Your task to perform on an android device: add a contact Image 0: 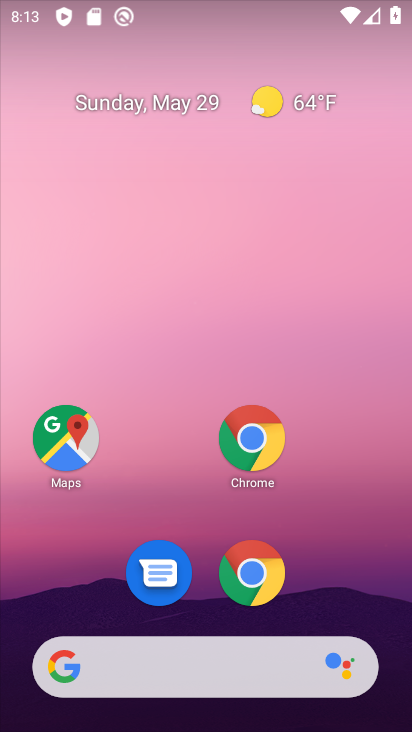
Step 0: drag from (269, 226) to (186, 121)
Your task to perform on an android device: add a contact Image 1: 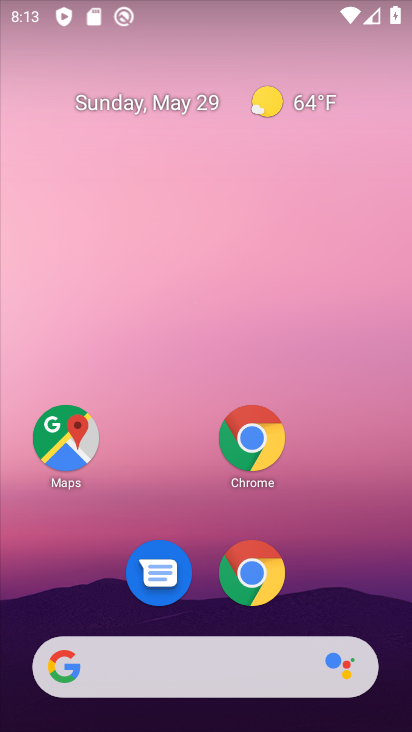
Step 1: drag from (203, 492) to (167, 46)
Your task to perform on an android device: add a contact Image 2: 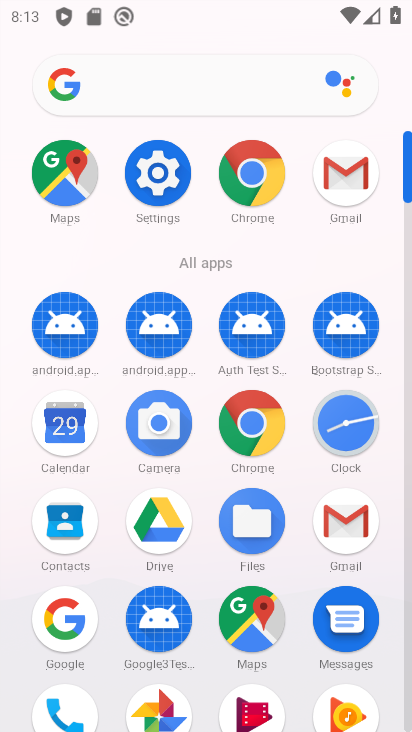
Step 2: drag from (249, 537) to (197, 0)
Your task to perform on an android device: add a contact Image 3: 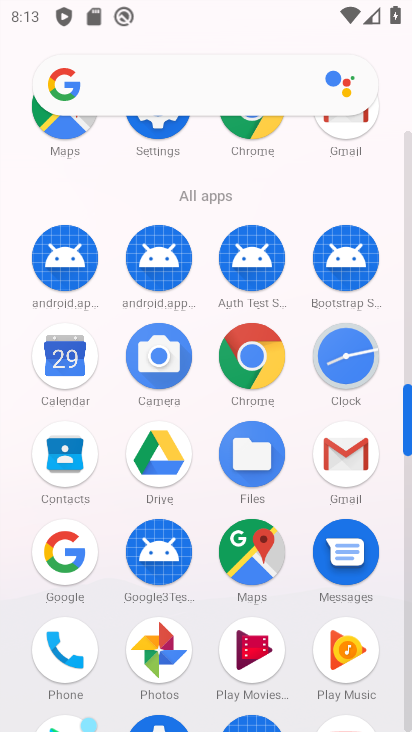
Step 3: click (57, 661)
Your task to perform on an android device: add a contact Image 4: 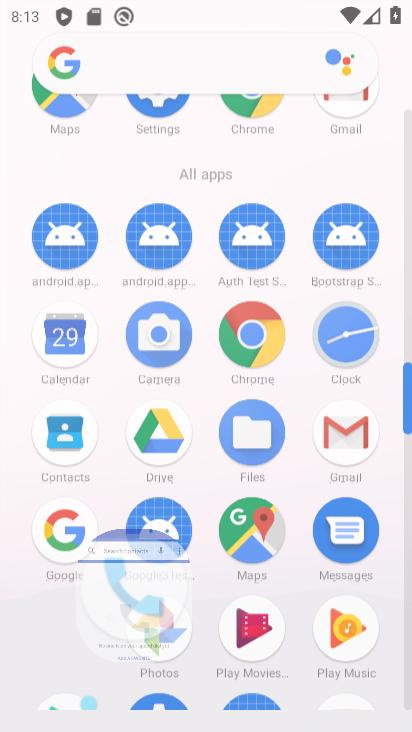
Step 4: click (58, 653)
Your task to perform on an android device: add a contact Image 5: 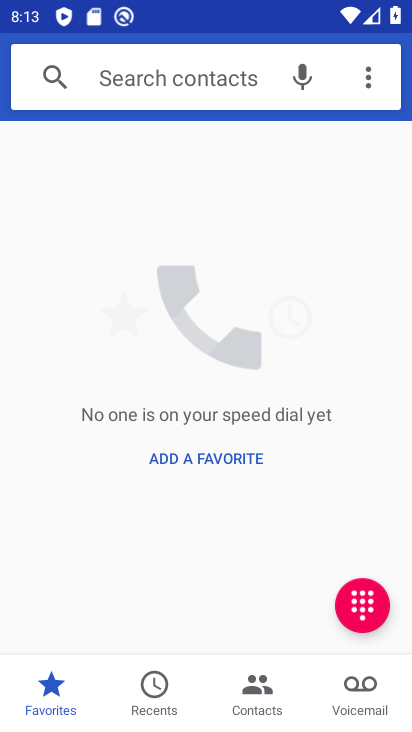
Step 5: click (58, 653)
Your task to perform on an android device: add a contact Image 6: 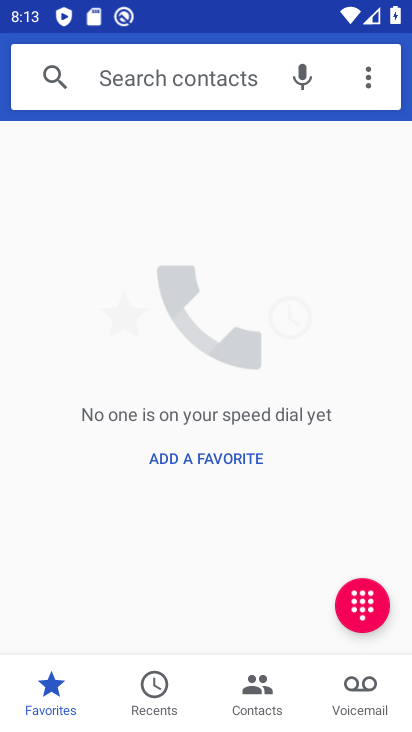
Step 6: click (219, 456)
Your task to perform on an android device: add a contact Image 7: 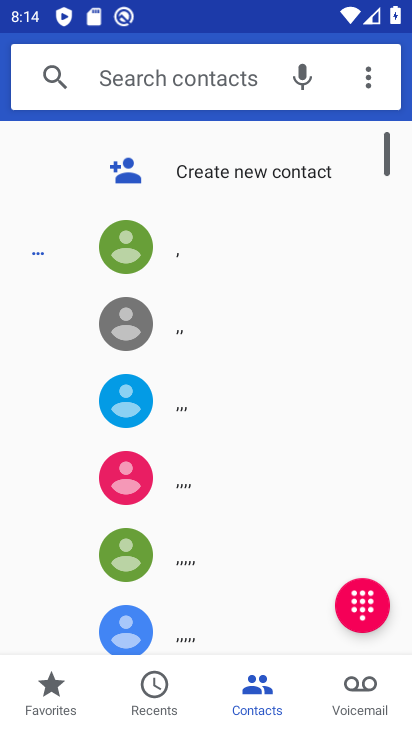
Step 7: click (207, 168)
Your task to perform on an android device: add a contact Image 8: 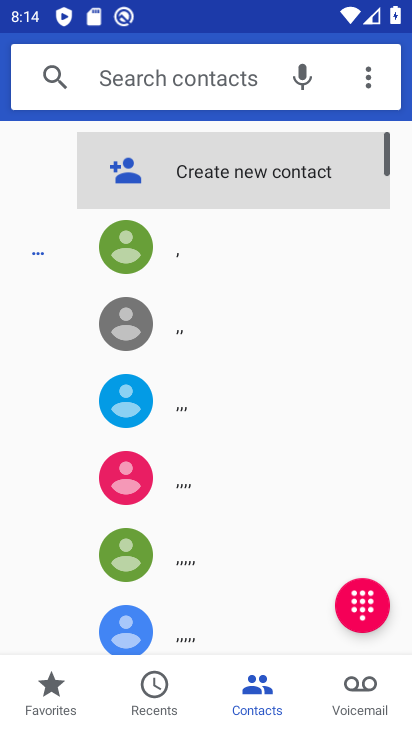
Step 8: click (208, 168)
Your task to perform on an android device: add a contact Image 9: 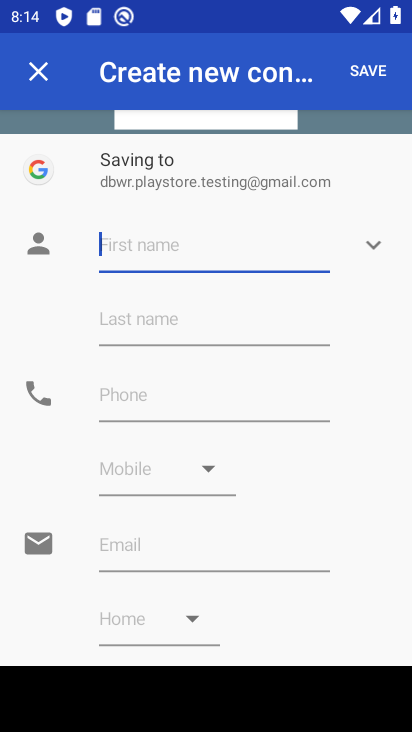
Step 9: type "chg"
Your task to perform on an android device: add a contact Image 10: 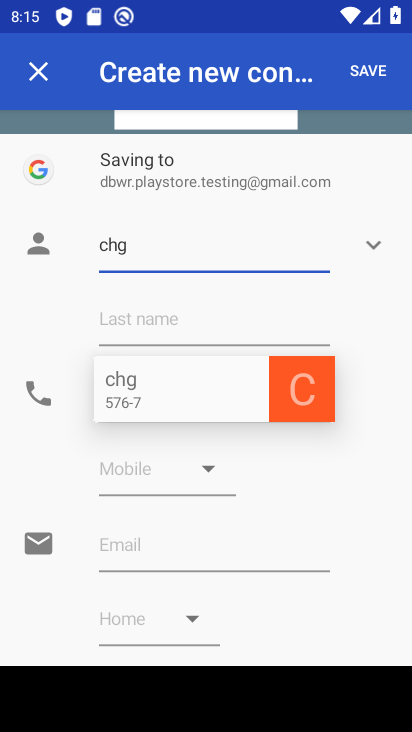
Step 10: click (134, 396)
Your task to perform on an android device: add a contact Image 11: 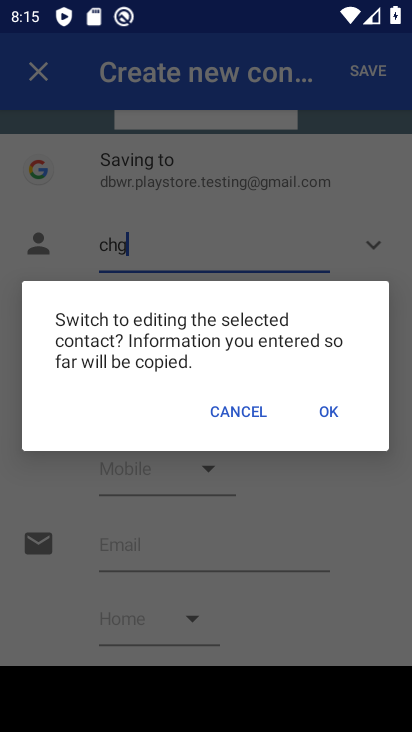
Step 11: click (320, 407)
Your task to perform on an android device: add a contact Image 12: 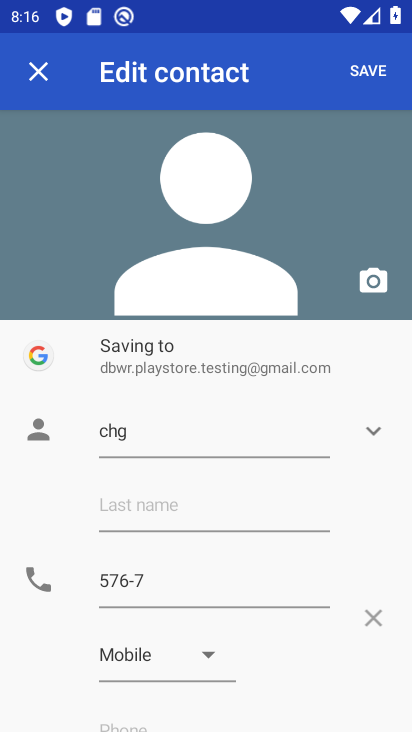
Step 12: click (118, 515)
Your task to perform on an android device: add a contact Image 13: 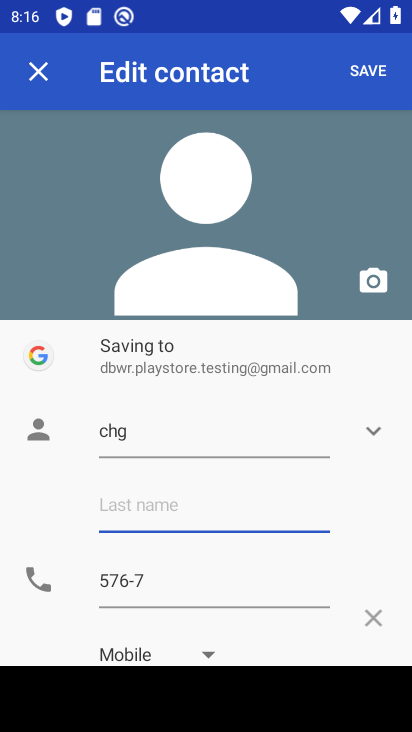
Step 13: click (362, 58)
Your task to perform on an android device: add a contact Image 14: 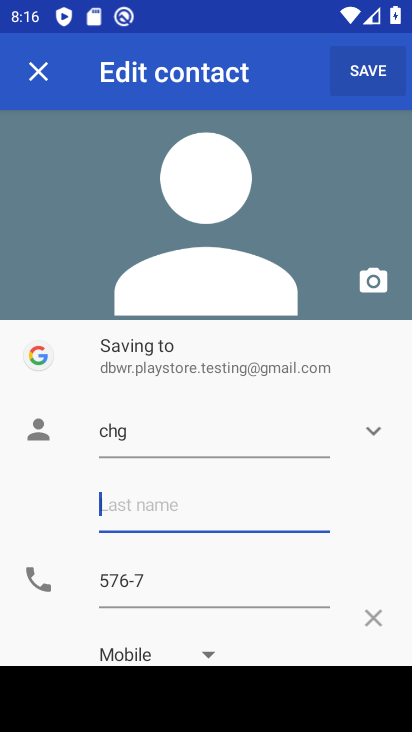
Step 14: click (365, 74)
Your task to perform on an android device: add a contact Image 15: 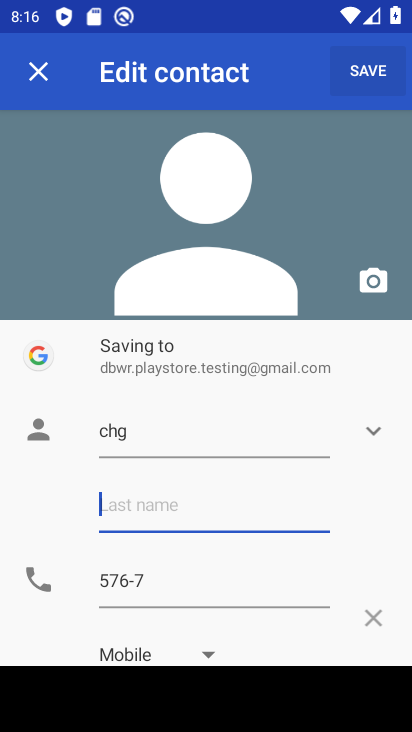
Step 15: click (365, 74)
Your task to perform on an android device: add a contact Image 16: 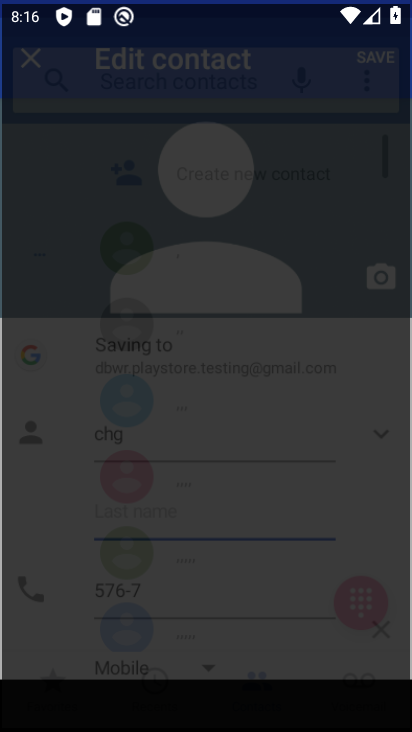
Step 16: click (366, 75)
Your task to perform on an android device: add a contact Image 17: 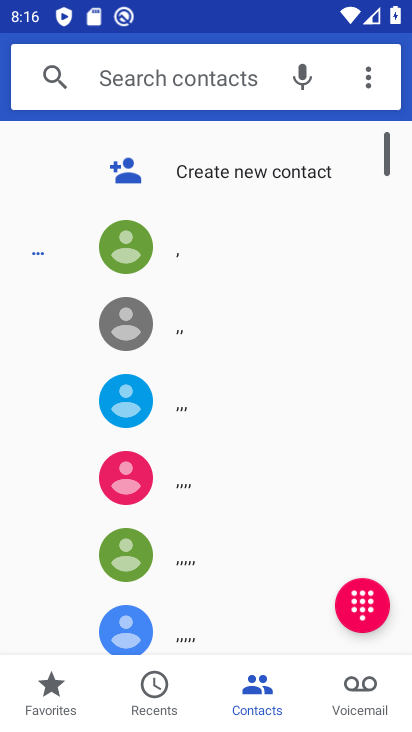
Step 17: task complete